Your task to perform on an android device: change the clock display to digital Image 0: 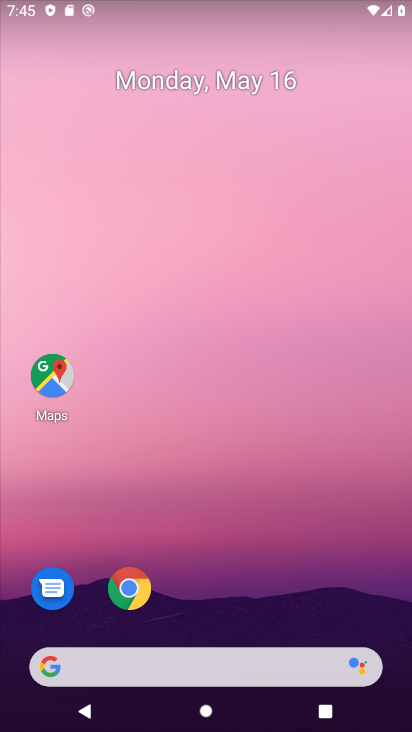
Step 0: drag from (370, 593) to (377, 127)
Your task to perform on an android device: change the clock display to digital Image 1: 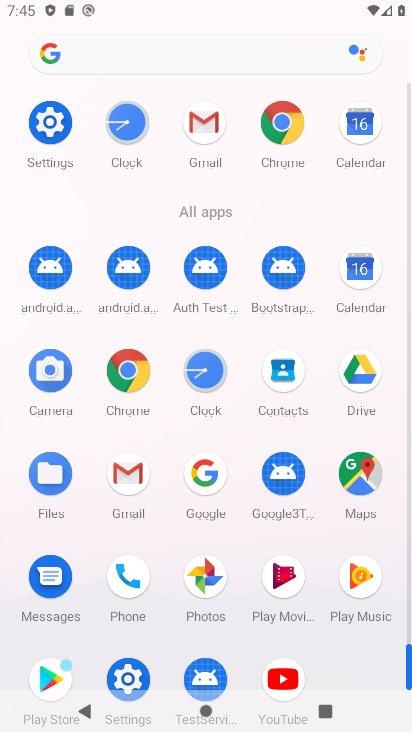
Step 1: click (207, 378)
Your task to perform on an android device: change the clock display to digital Image 2: 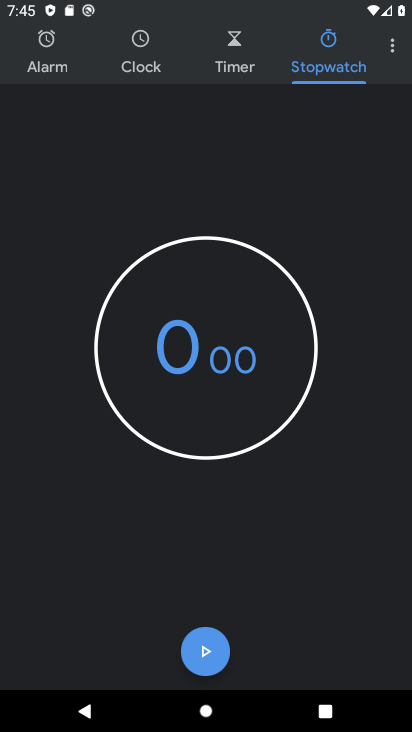
Step 2: click (396, 48)
Your task to perform on an android device: change the clock display to digital Image 3: 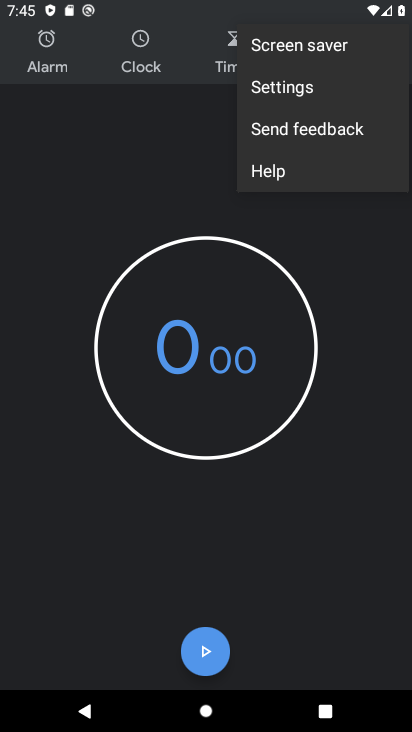
Step 3: click (314, 101)
Your task to perform on an android device: change the clock display to digital Image 4: 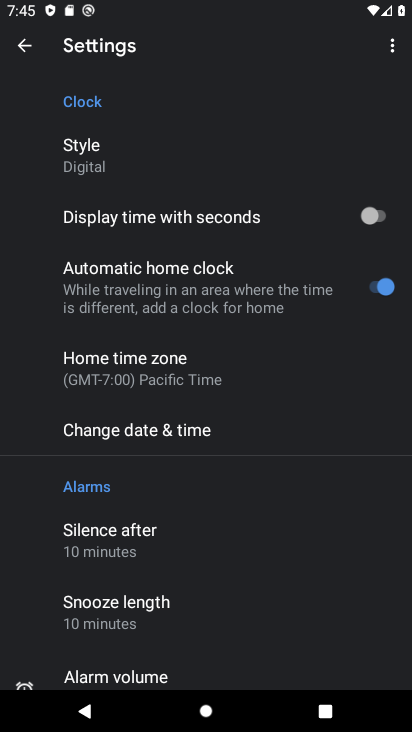
Step 4: task complete